Your task to perform on an android device: check battery use Image 0: 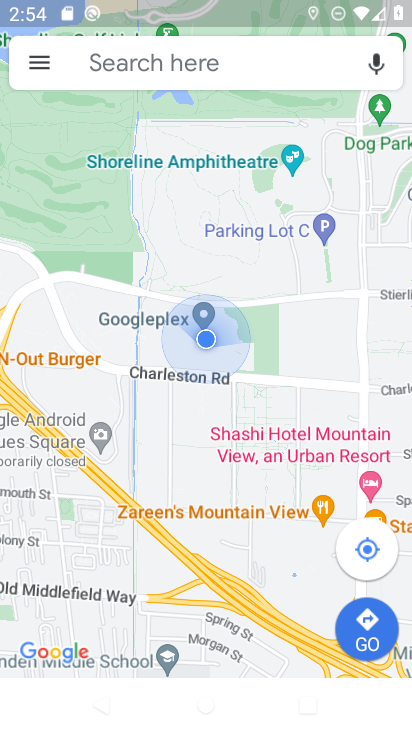
Step 0: press home button
Your task to perform on an android device: check battery use Image 1: 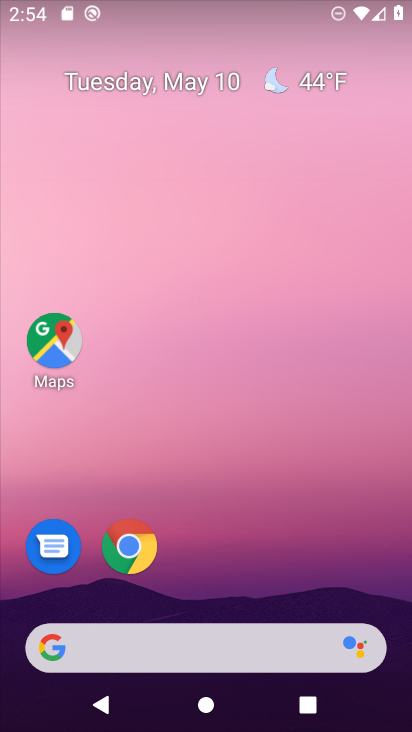
Step 1: drag from (281, 635) to (222, 49)
Your task to perform on an android device: check battery use Image 2: 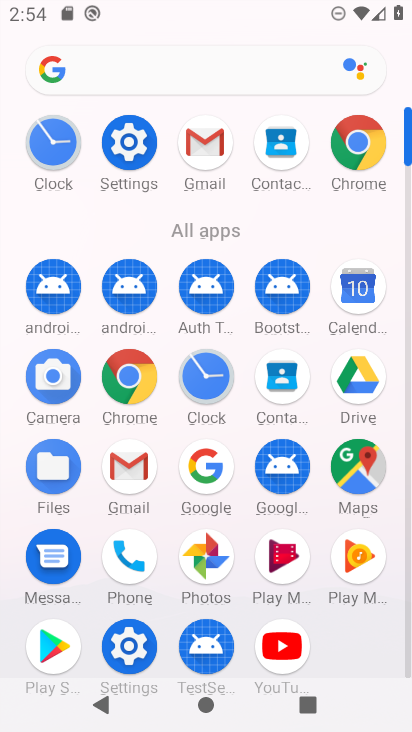
Step 2: click (124, 124)
Your task to perform on an android device: check battery use Image 3: 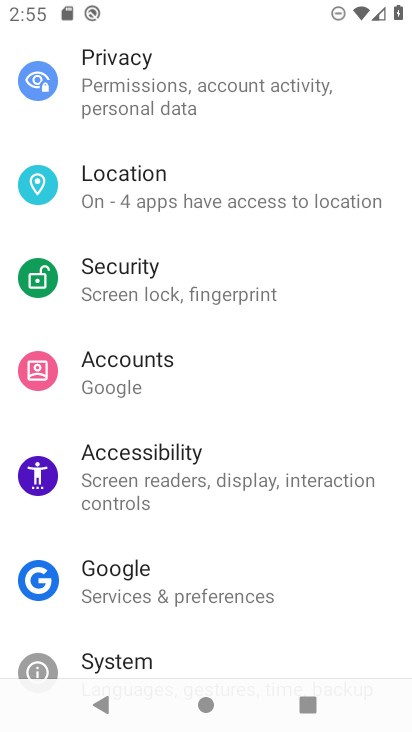
Step 3: drag from (219, 220) to (188, 693)
Your task to perform on an android device: check battery use Image 4: 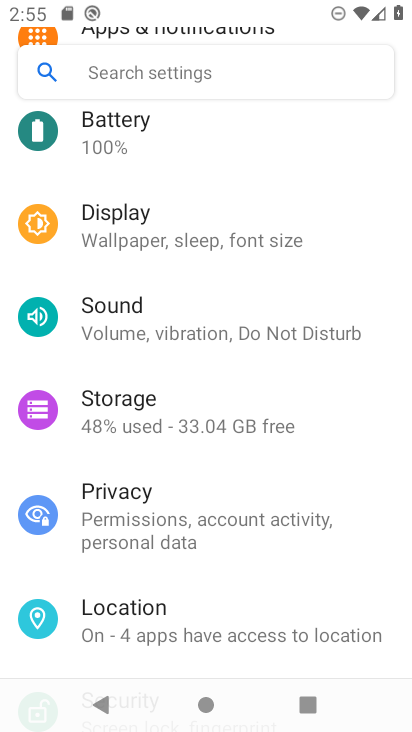
Step 4: click (155, 153)
Your task to perform on an android device: check battery use Image 5: 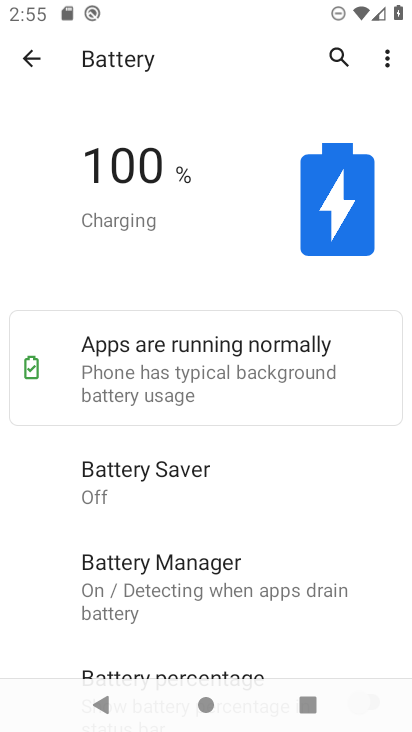
Step 5: task complete